Your task to perform on an android device: What is the news today? Image 0: 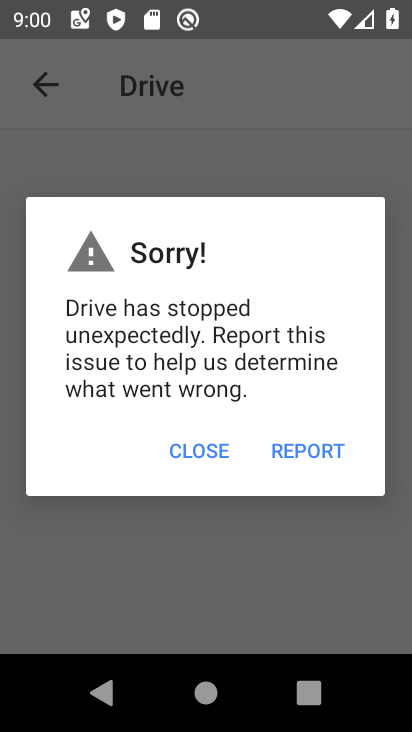
Step 0: press home button
Your task to perform on an android device: What is the news today? Image 1: 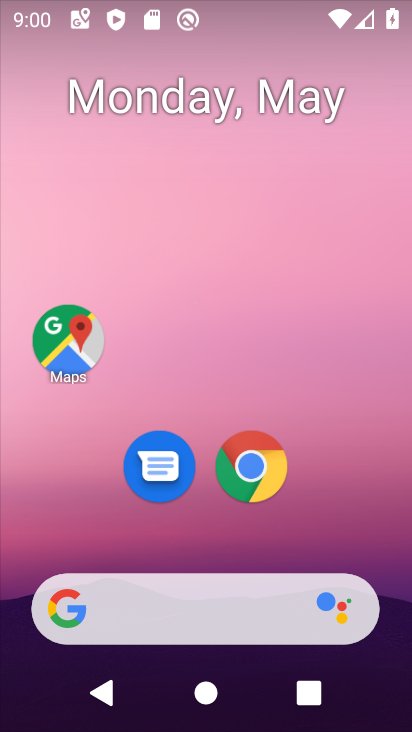
Step 1: click (152, 621)
Your task to perform on an android device: What is the news today? Image 2: 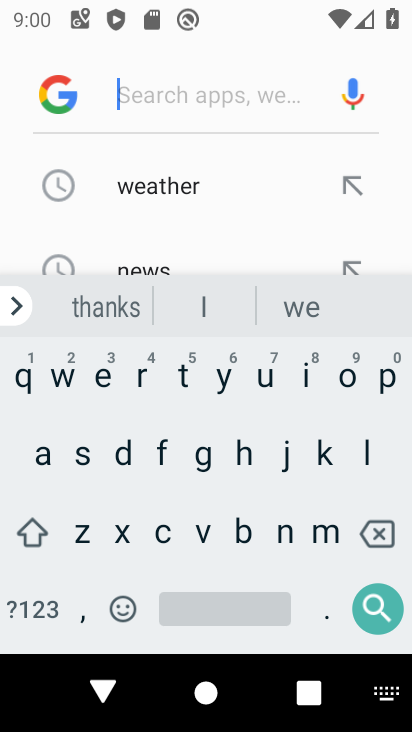
Step 2: click (164, 256)
Your task to perform on an android device: What is the news today? Image 3: 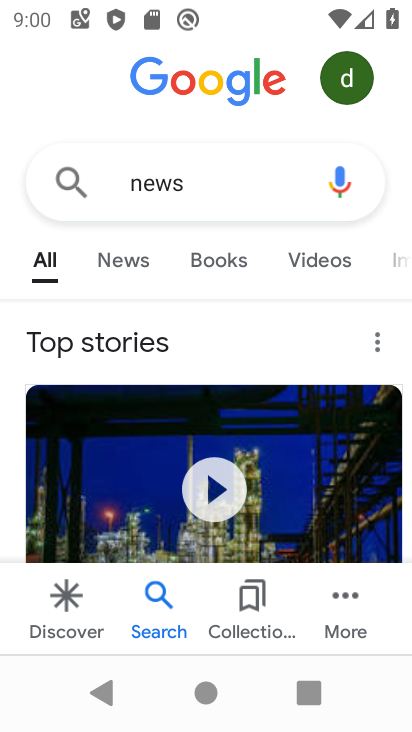
Step 3: task complete